Your task to perform on an android device: Open maps Image 0: 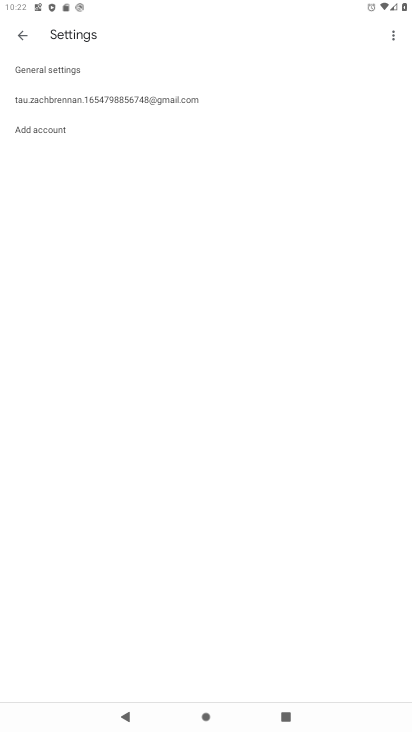
Step 0: press home button
Your task to perform on an android device: Open maps Image 1: 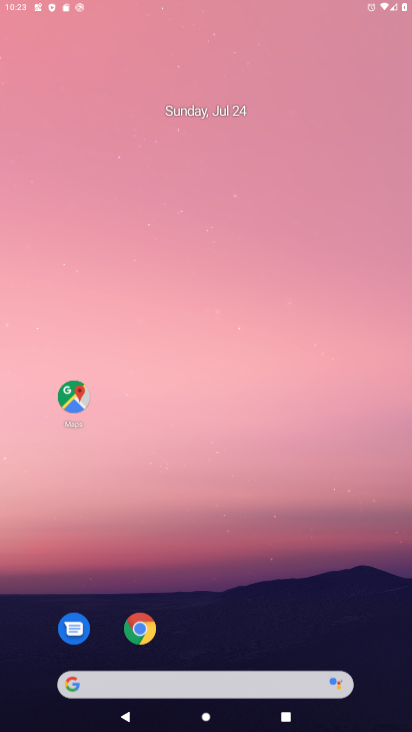
Step 1: drag from (193, 624) to (274, 149)
Your task to perform on an android device: Open maps Image 2: 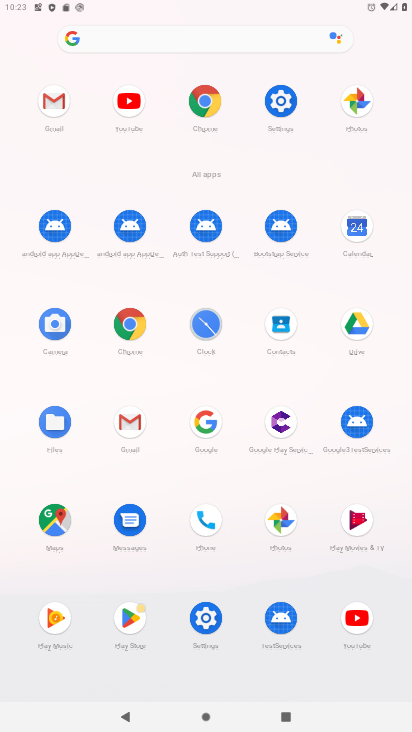
Step 2: click (53, 517)
Your task to perform on an android device: Open maps Image 3: 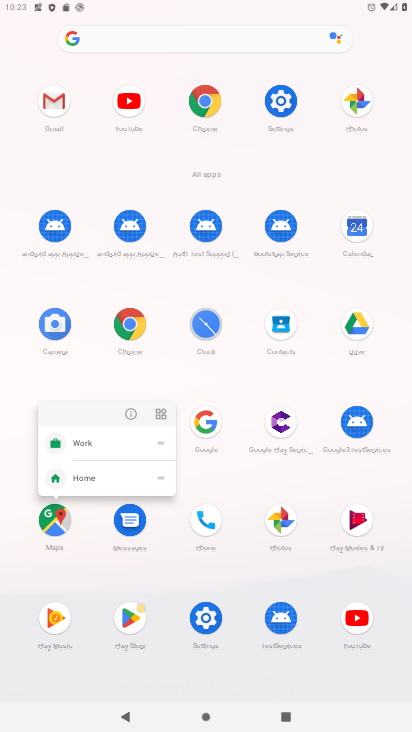
Step 3: click (126, 412)
Your task to perform on an android device: Open maps Image 4: 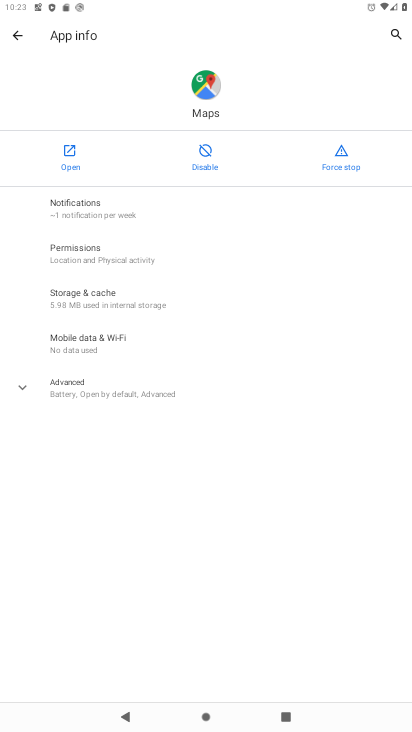
Step 4: click (72, 158)
Your task to perform on an android device: Open maps Image 5: 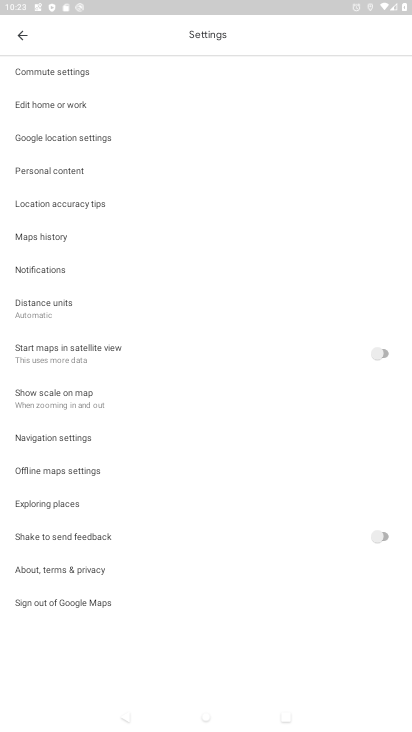
Step 5: drag from (187, 642) to (224, 240)
Your task to perform on an android device: Open maps Image 6: 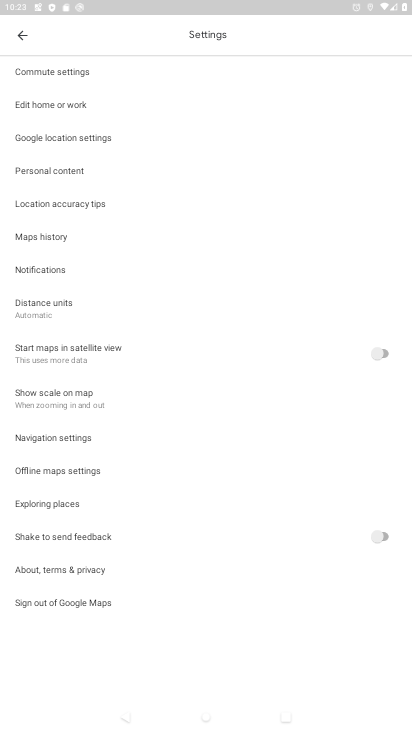
Step 6: drag from (252, 555) to (256, 228)
Your task to perform on an android device: Open maps Image 7: 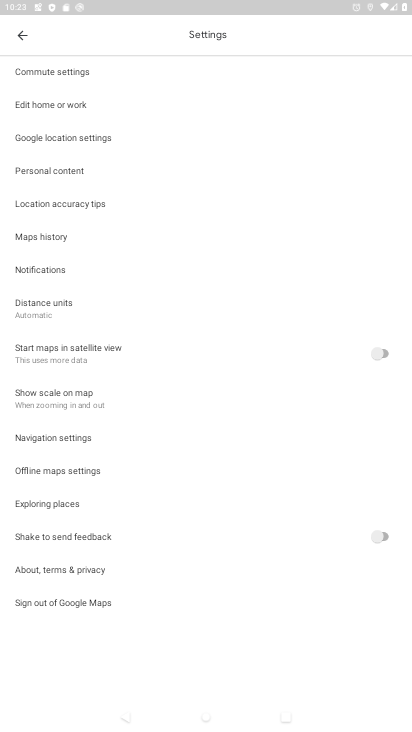
Step 7: click (24, 29)
Your task to perform on an android device: Open maps Image 8: 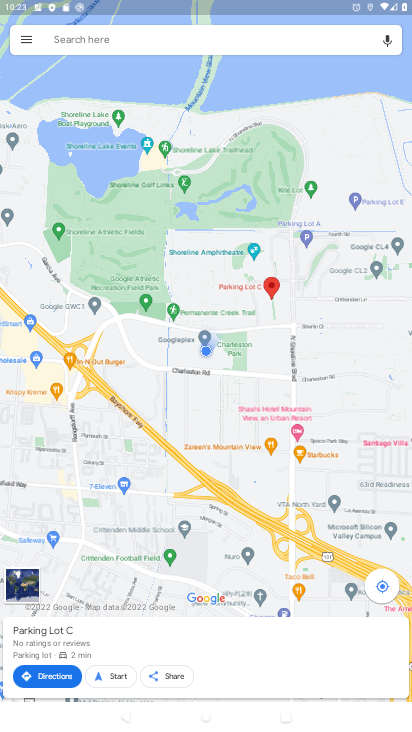
Step 8: task complete